Your task to perform on an android device: toggle sleep mode Image 0: 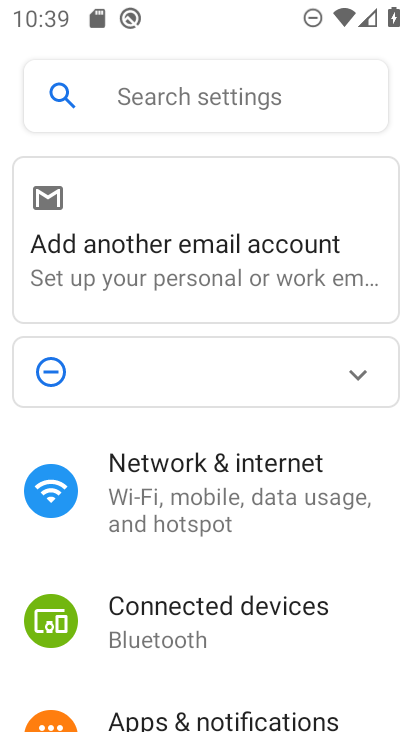
Step 0: press home button
Your task to perform on an android device: toggle sleep mode Image 1: 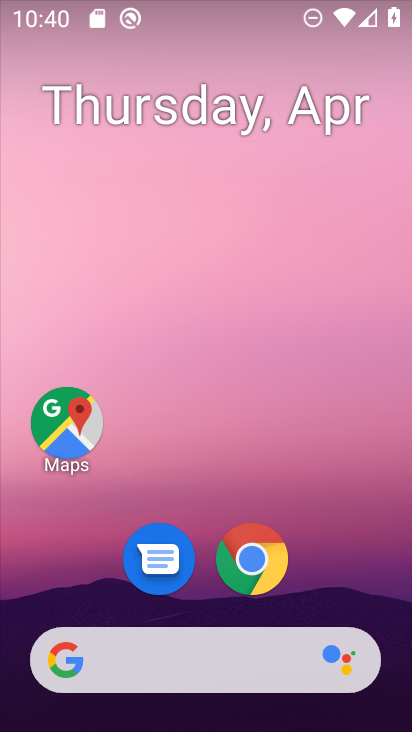
Step 1: drag from (310, 697) to (245, 122)
Your task to perform on an android device: toggle sleep mode Image 2: 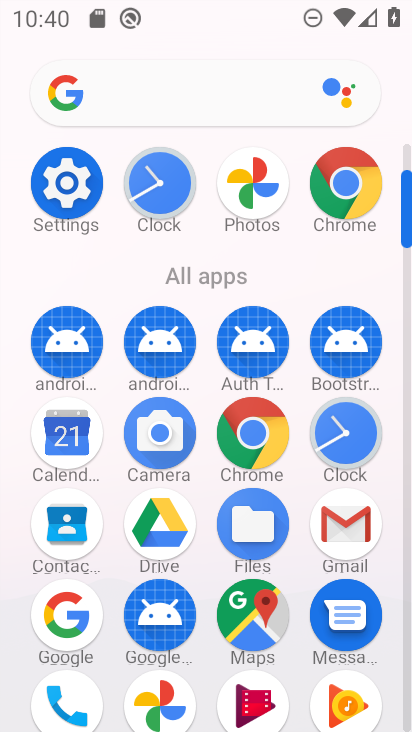
Step 2: click (57, 178)
Your task to perform on an android device: toggle sleep mode Image 3: 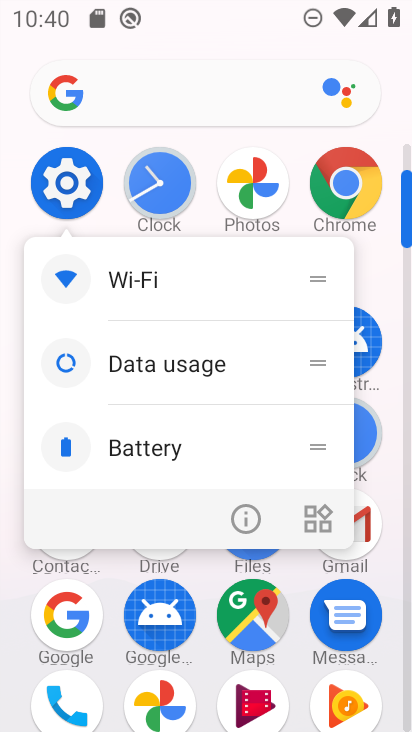
Step 3: click (60, 185)
Your task to perform on an android device: toggle sleep mode Image 4: 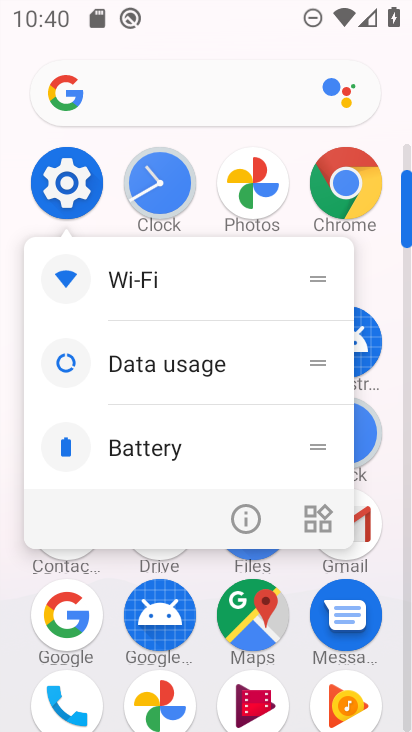
Step 4: click (74, 180)
Your task to perform on an android device: toggle sleep mode Image 5: 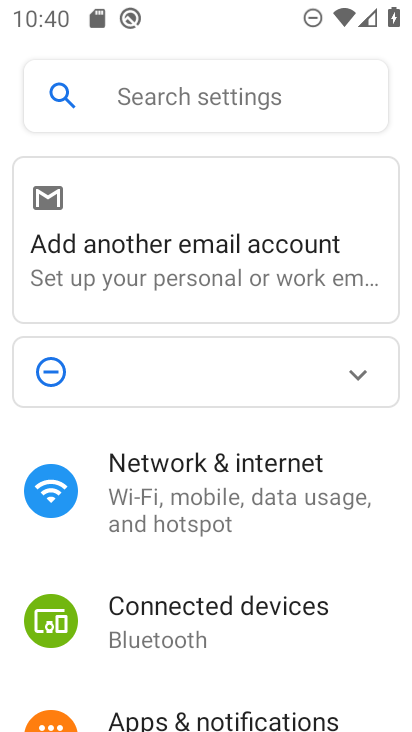
Step 5: click (205, 115)
Your task to perform on an android device: toggle sleep mode Image 6: 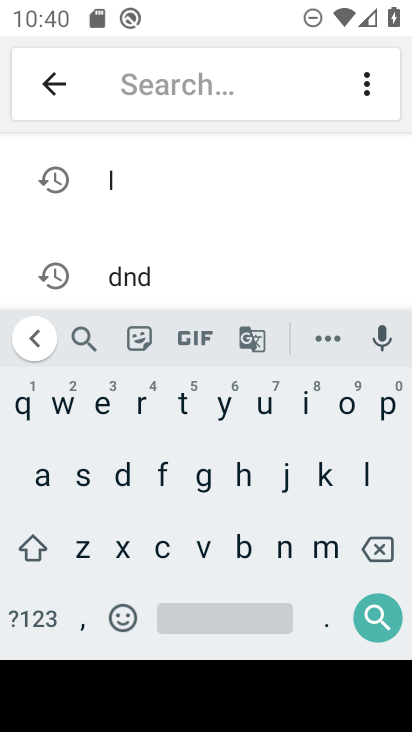
Step 6: click (80, 482)
Your task to perform on an android device: toggle sleep mode Image 7: 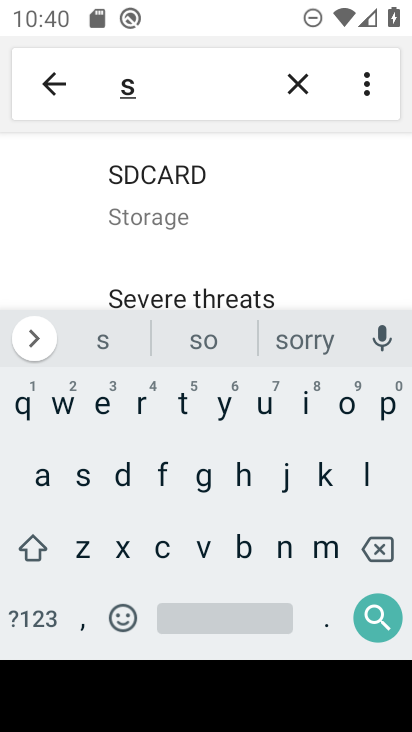
Step 7: click (367, 469)
Your task to perform on an android device: toggle sleep mode Image 8: 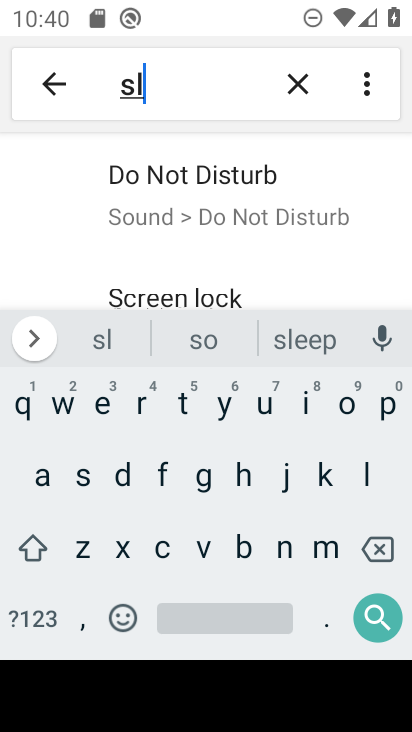
Step 8: click (205, 221)
Your task to perform on an android device: toggle sleep mode Image 9: 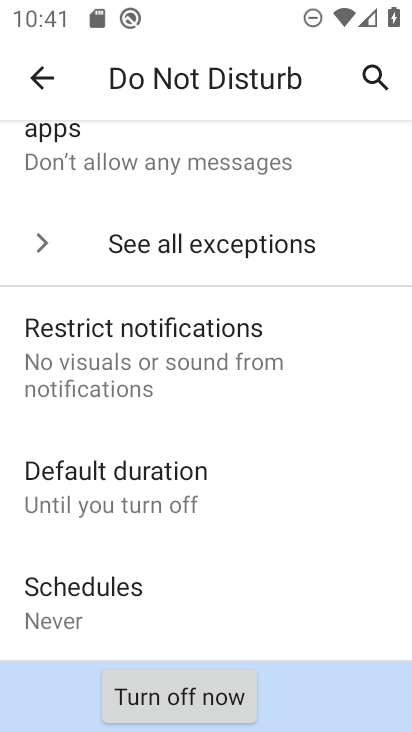
Step 9: click (216, 697)
Your task to perform on an android device: toggle sleep mode Image 10: 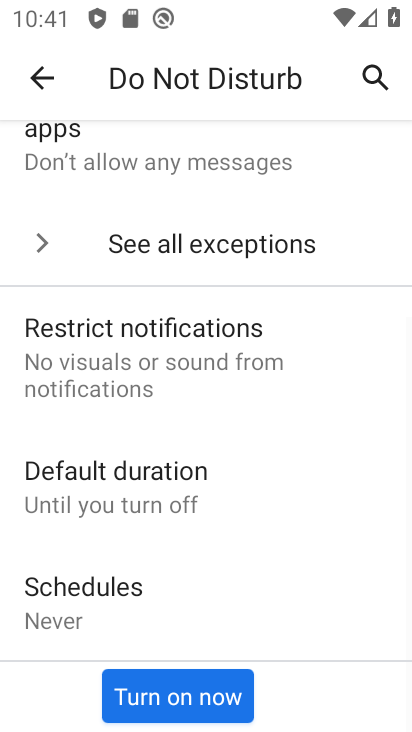
Step 10: task complete